Your task to perform on an android device: turn off location Image 0: 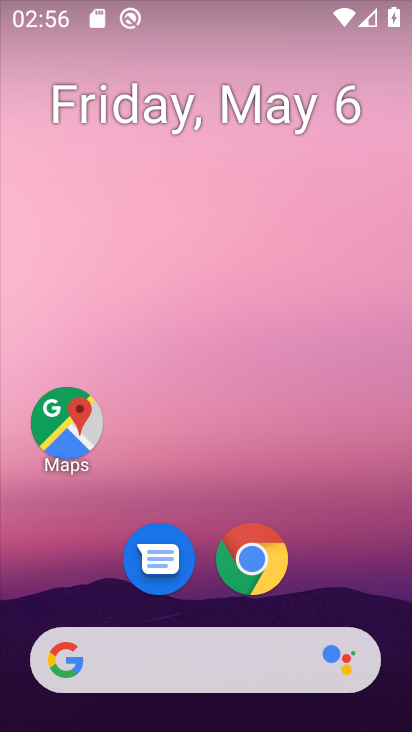
Step 0: drag from (319, 635) to (345, 50)
Your task to perform on an android device: turn off location Image 1: 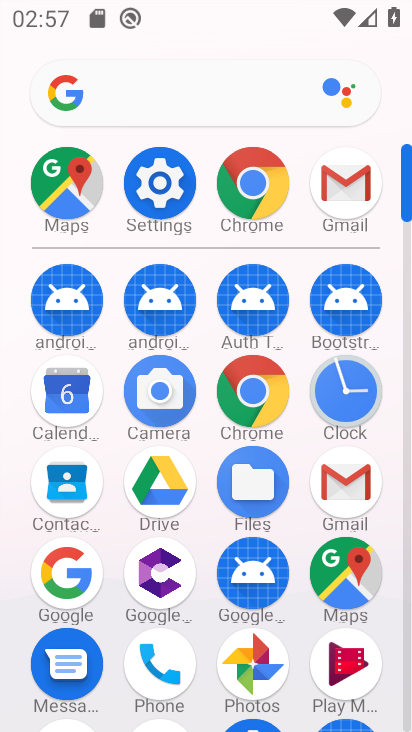
Step 1: click (176, 188)
Your task to perform on an android device: turn off location Image 2: 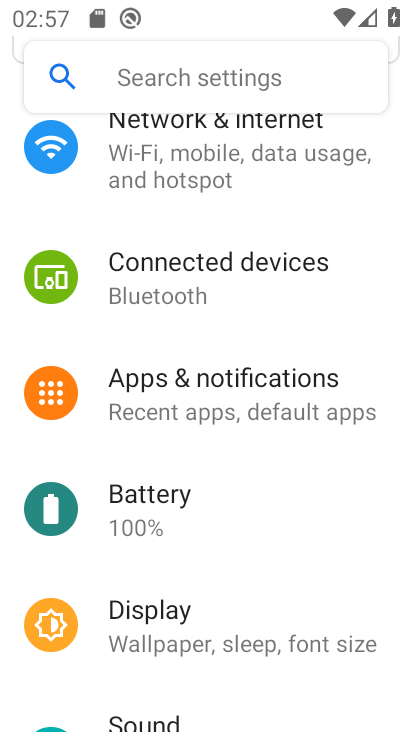
Step 2: drag from (134, 626) to (165, 95)
Your task to perform on an android device: turn off location Image 3: 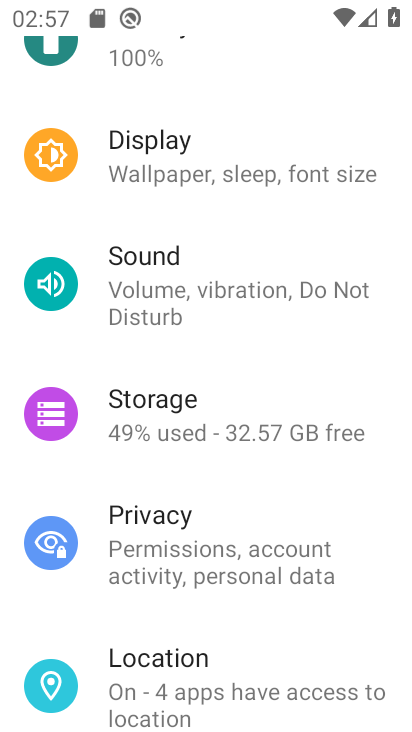
Step 3: click (163, 662)
Your task to perform on an android device: turn off location Image 4: 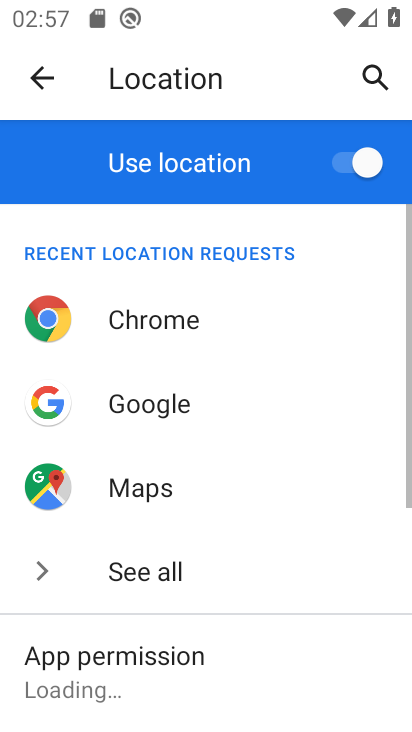
Step 4: click (340, 164)
Your task to perform on an android device: turn off location Image 5: 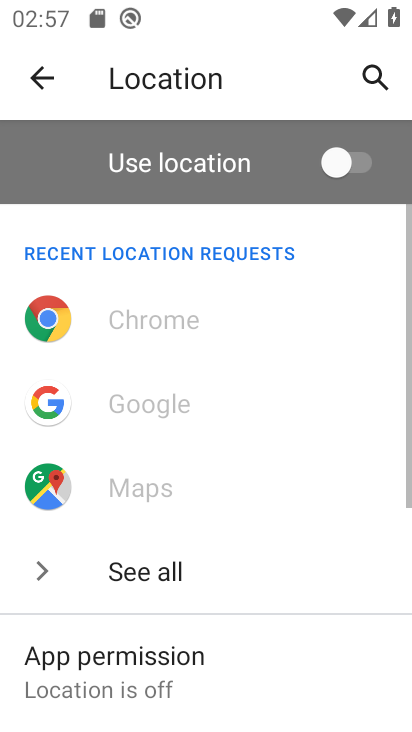
Step 5: task complete